Your task to perform on an android device: move an email to a new category in the gmail app Image 0: 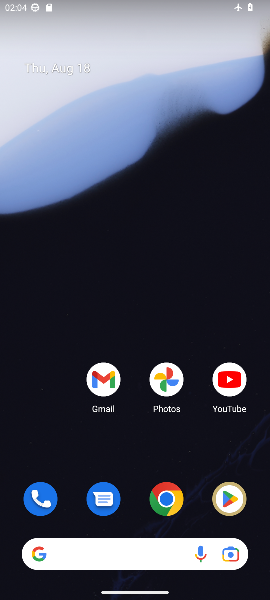
Step 0: press home button
Your task to perform on an android device: move an email to a new category in the gmail app Image 1: 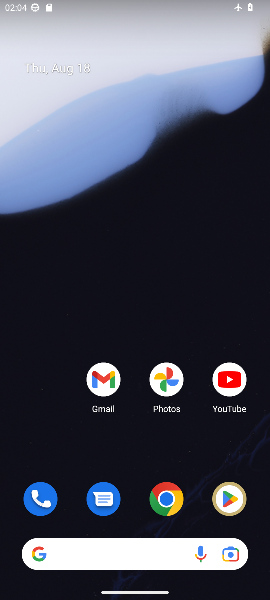
Step 1: click (103, 377)
Your task to perform on an android device: move an email to a new category in the gmail app Image 2: 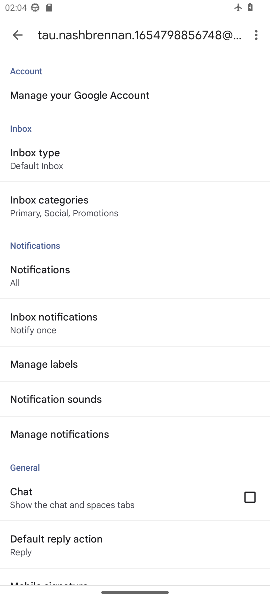
Step 2: click (17, 36)
Your task to perform on an android device: move an email to a new category in the gmail app Image 3: 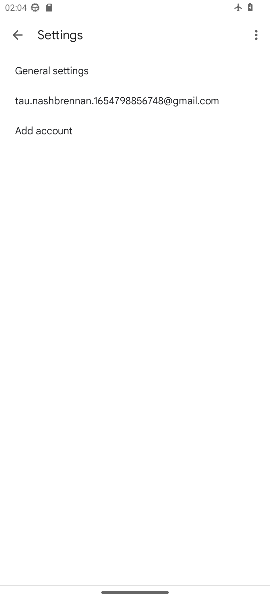
Step 3: click (17, 36)
Your task to perform on an android device: move an email to a new category in the gmail app Image 4: 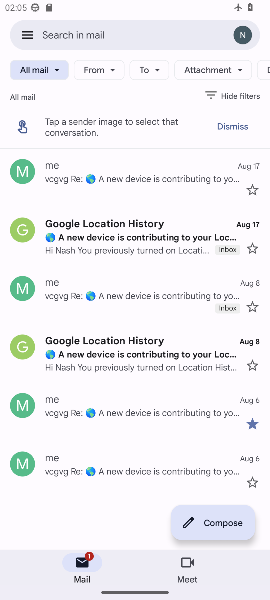
Step 4: click (117, 164)
Your task to perform on an android device: move an email to a new category in the gmail app Image 5: 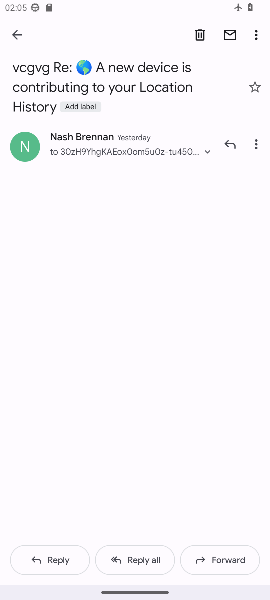
Step 5: click (257, 30)
Your task to perform on an android device: move an email to a new category in the gmail app Image 6: 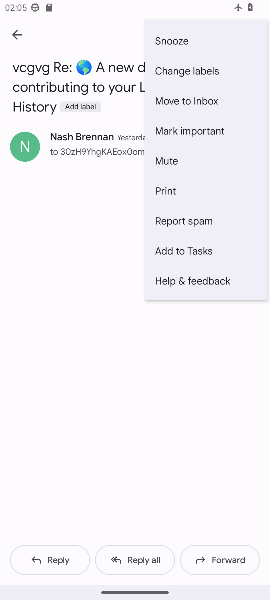
Step 6: click (178, 99)
Your task to perform on an android device: move an email to a new category in the gmail app Image 7: 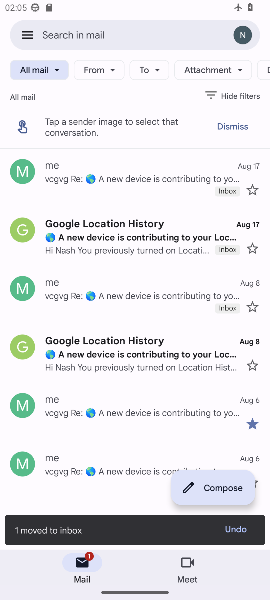
Step 7: task complete